Your task to perform on an android device: When is my next meeting? Image 0: 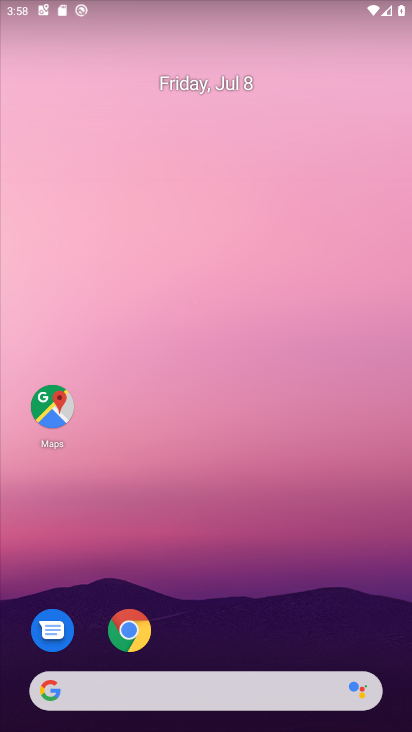
Step 0: drag from (213, 532) to (182, 73)
Your task to perform on an android device: When is my next meeting? Image 1: 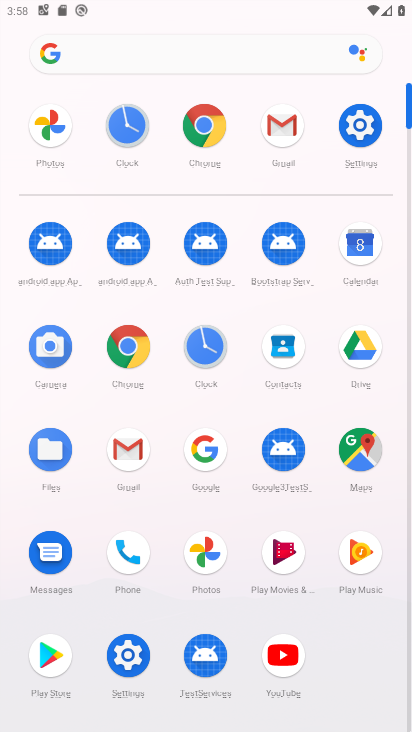
Step 1: click (359, 245)
Your task to perform on an android device: When is my next meeting? Image 2: 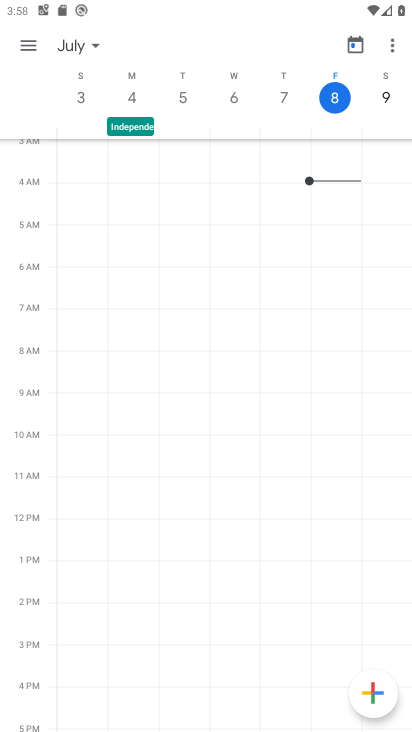
Step 2: task complete